Your task to perform on an android device: move a message to another label in the gmail app Image 0: 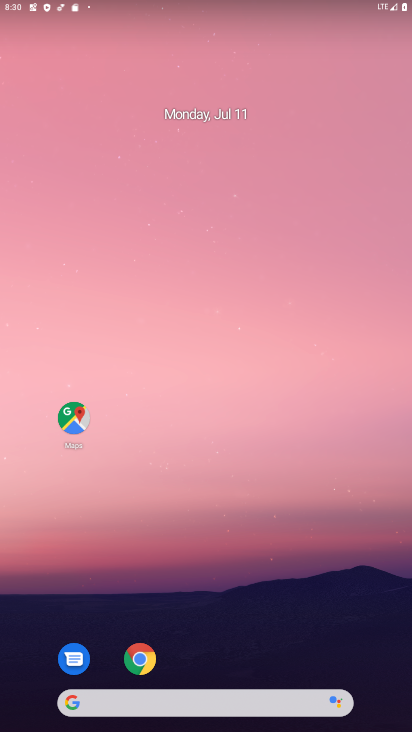
Step 0: drag from (235, 451) to (255, 39)
Your task to perform on an android device: move a message to another label in the gmail app Image 1: 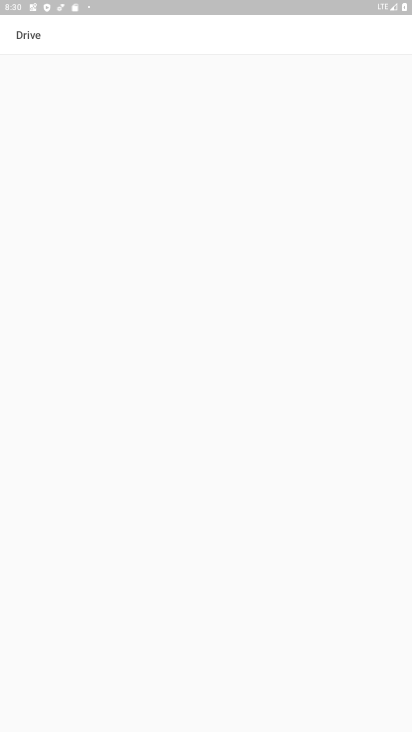
Step 1: press home button
Your task to perform on an android device: move a message to another label in the gmail app Image 2: 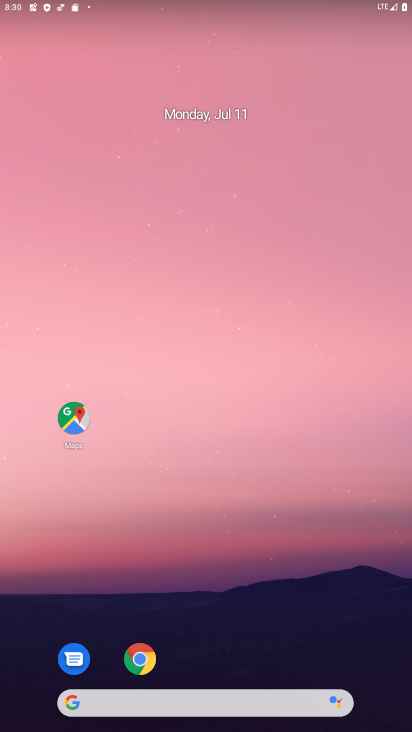
Step 2: drag from (208, 614) to (225, 0)
Your task to perform on an android device: move a message to another label in the gmail app Image 3: 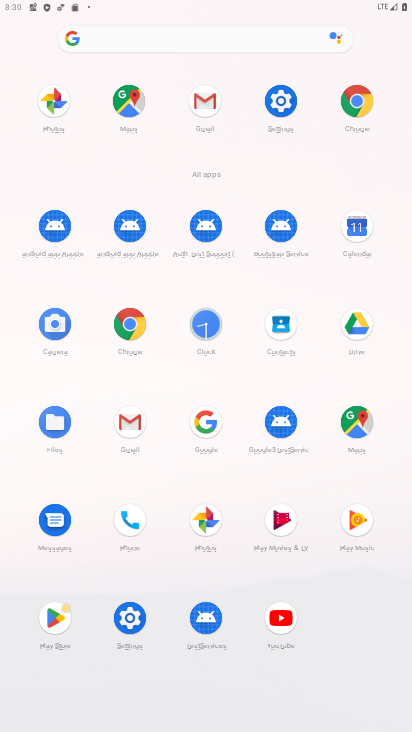
Step 3: click (134, 425)
Your task to perform on an android device: move a message to another label in the gmail app Image 4: 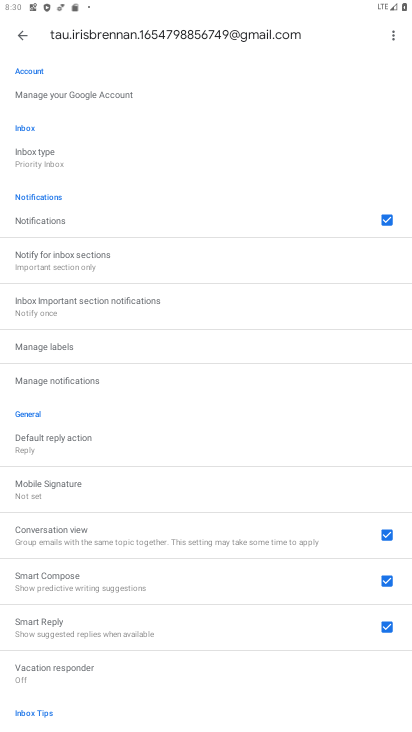
Step 4: click (16, 19)
Your task to perform on an android device: move a message to another label in the gmail app Image 5: 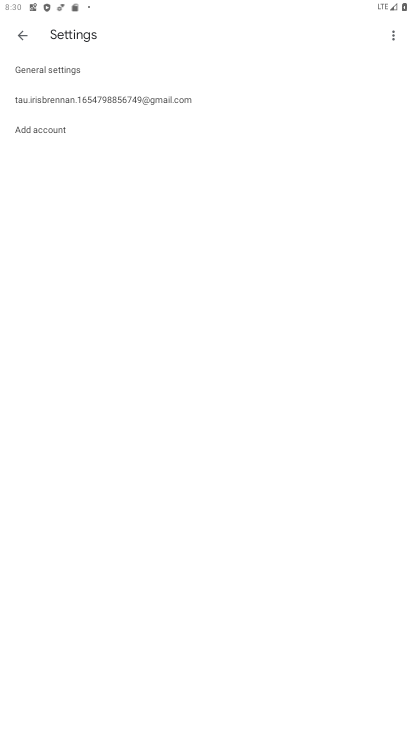
Step 5: click (16, 34)
Your task to perform on an android device: move a message to another label in the gmail app Image 6: 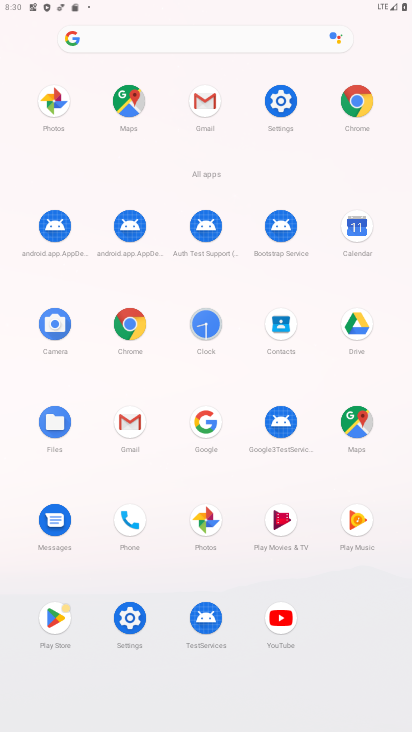
Step 6: click (132, 428)
Your task to perform on an android device: move a message to another label in the gmail app Image 7: 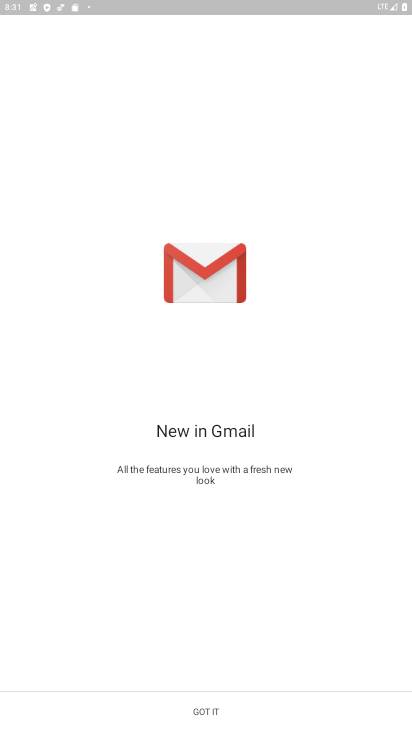
Step 7: click (217, 711)
Your task to perform on an android device: move a message to another label in the gmail app Image 8: 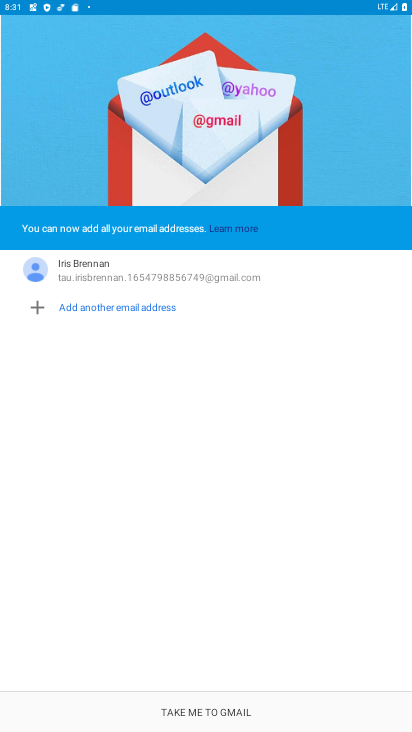
Step 8: click (215, 707)
Your task to perform on an android device: move a message to another label in the gmail app Image 9: 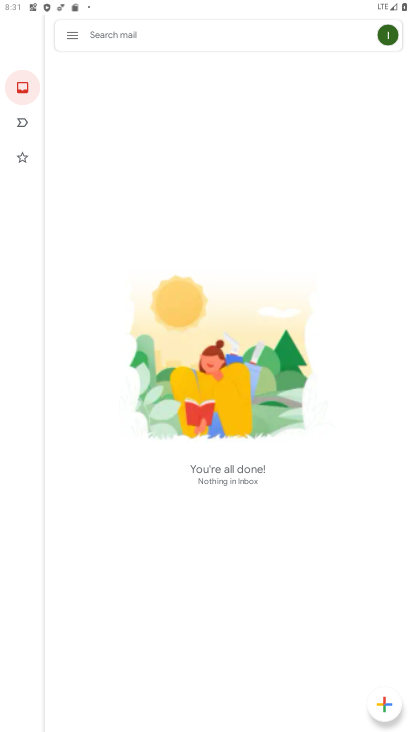
Step 9: task complete